Your task to perform on an android device: toggle notification dots Image 0: 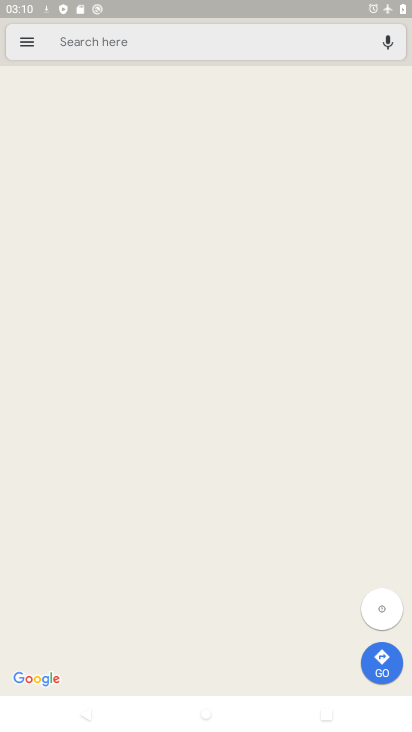
Step 0: press home button
Your task to perform on an android device: toggle notification dots Image 1: 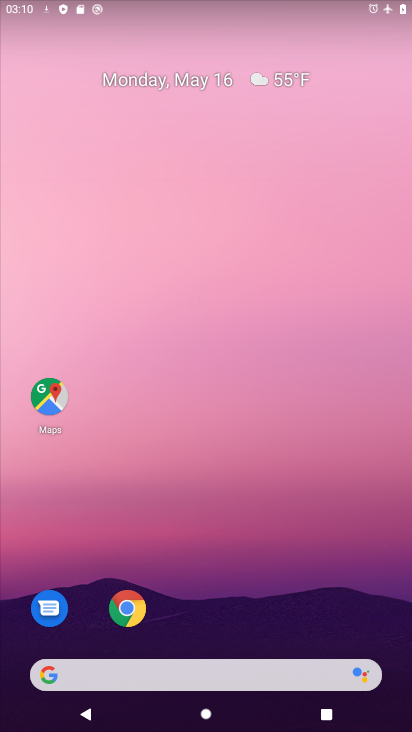
Step 1: drag from (208, 627) to (232, 189)
Your task to perform on an android device: toggle notification dots Image 2: 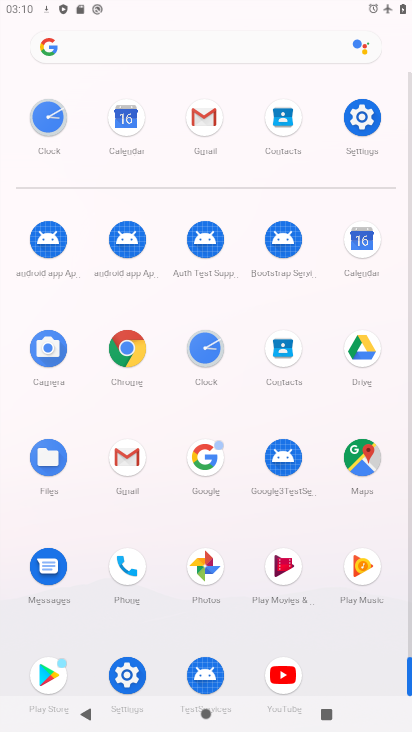
Step 2: click (387, 109)
Your task to perform on an android device: toggle notification dots Image 3: 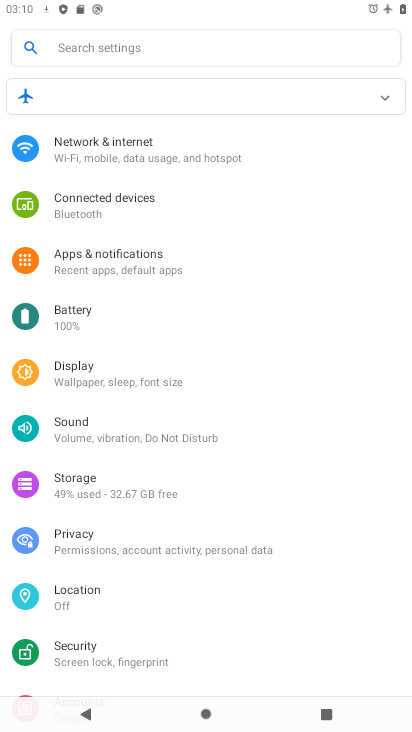
Step 3: click (126, 249)
Your task to perform on an android device: toggle notification dots Image 4: 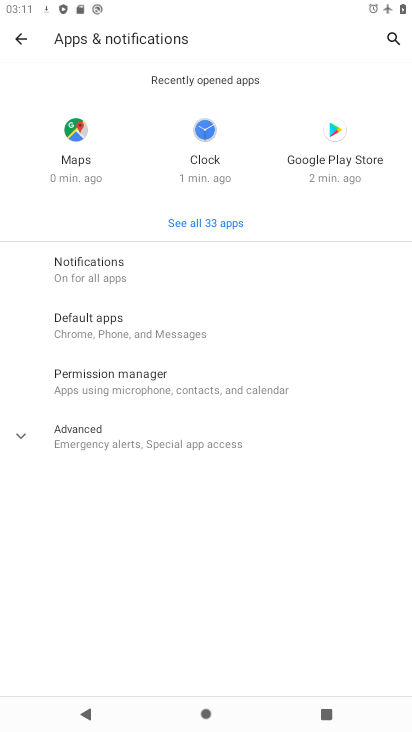
Step 4: click (102, 438)
Your task to perform on an android device: toggle notification dots Image 5: 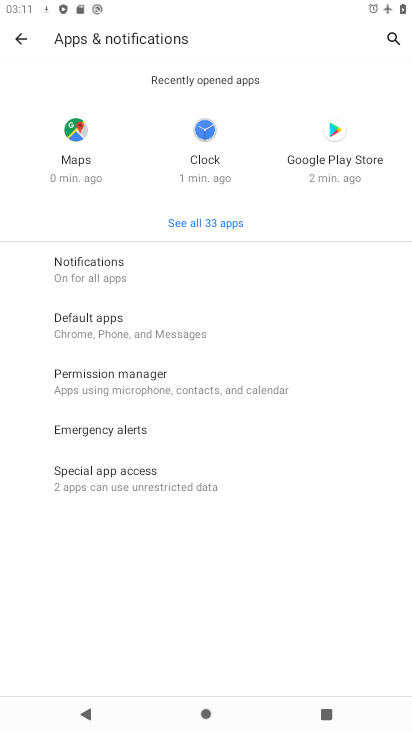
Step 5: click (114, 273)
Your task to perform on an android device: toggle notification dots Image 6: 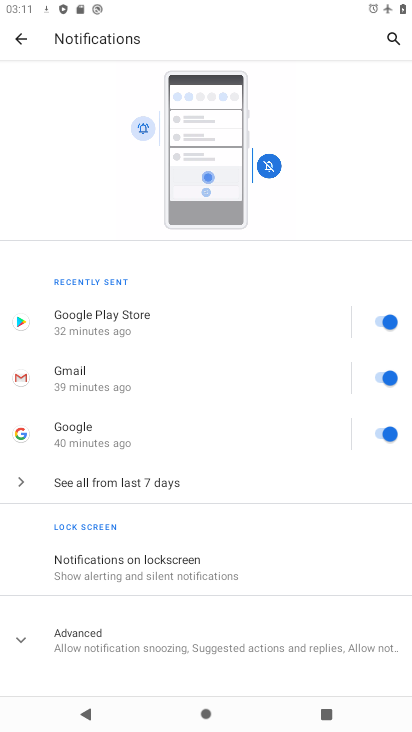
Step 6: drag from (182, 597) to (164, 441)
Your task to perform on an android device: toggle notification dots Image 7: 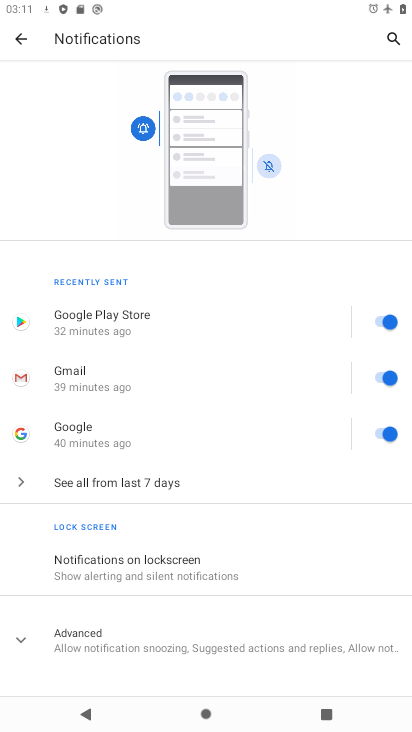
Step 7: click (121, 626)
Your task to perform on an android device: toggle notification dots Image 8: 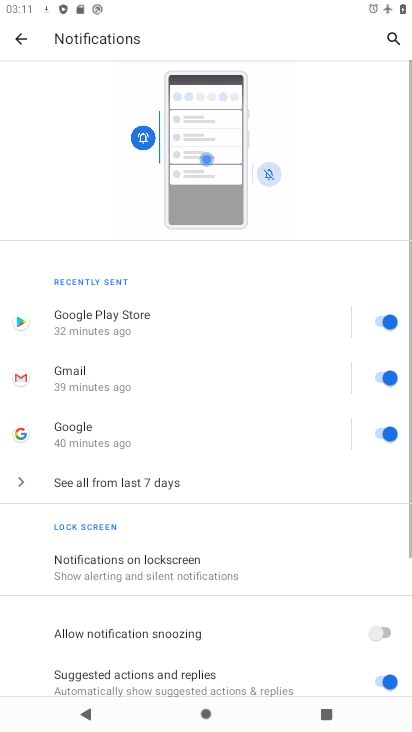
Step 8: drag from (202, 639) to (213, 413)
Your task to perform on an android device: toggle notification dots Image 9: 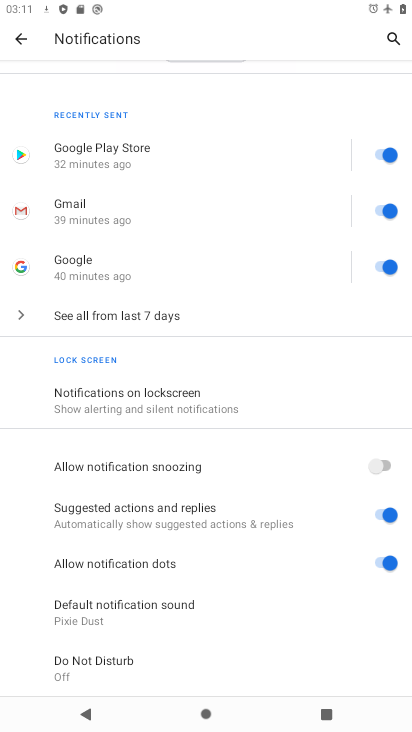
Step 9: click (374, 557)
Your task to perform on an android device: toggle notification dots Image 10: 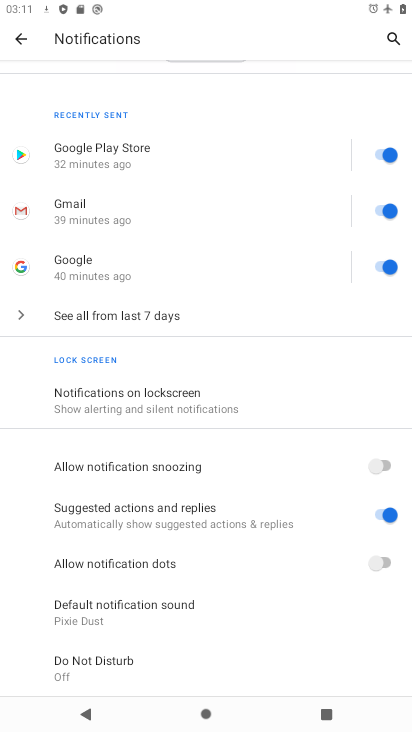
Step 10: task complete